Your task to perform on an android device: delete a single message in the gmail app Image 0: 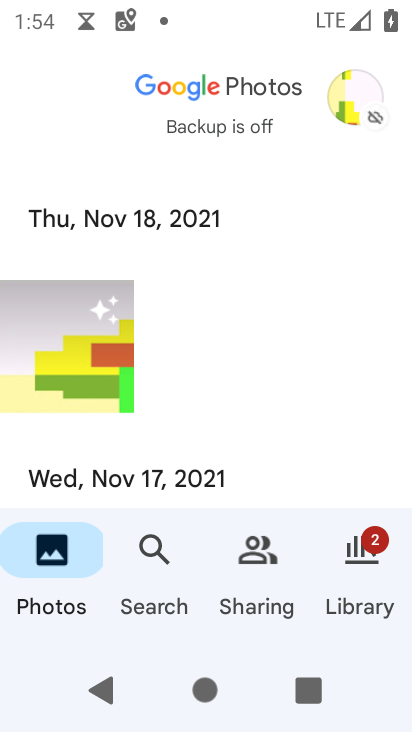
Step 0: press home button
Your task to perform on an android device: delete a single message in the gmail app Image 1: 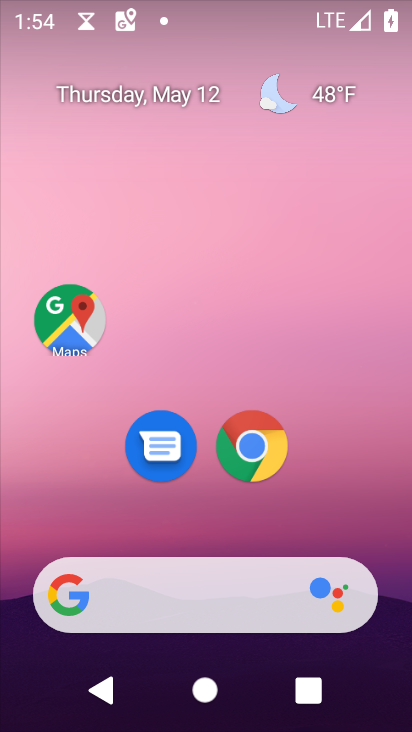
Step 1: drag from (326, 501) to (315, 109)
Your task to perform on an android device: delete a single message in the gmail app Image 2: 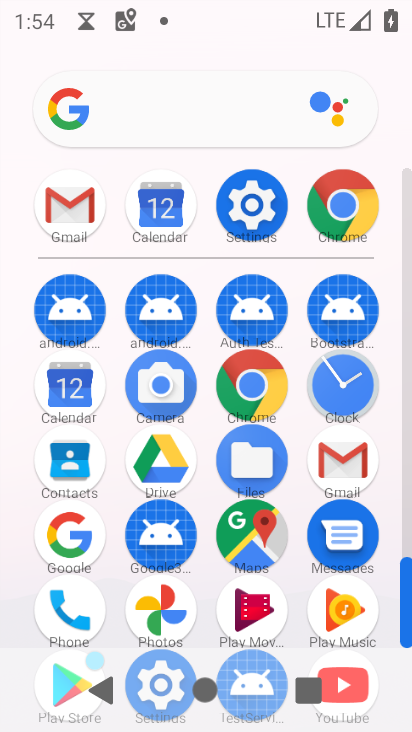
Step 2: click (71, 202)
Your task to perform on an android device: delete a single message in the gmail app Image 3: 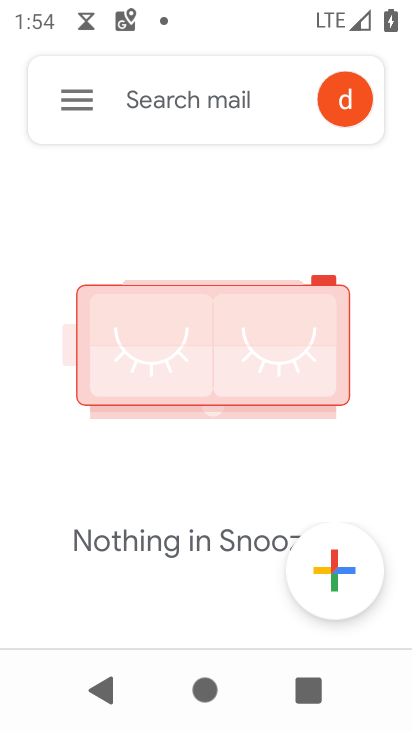
Step 3: click (81, 99)
Your task to perform on an android device: delete a single message in the gmail app Image 4: 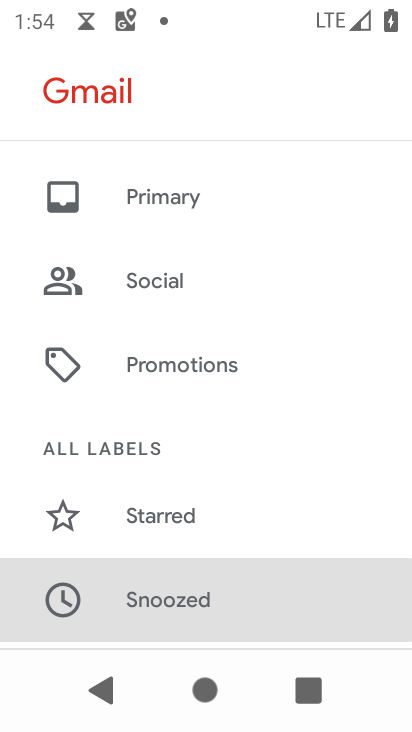
Step 4: drag from (246, 516) to (263, 212)
Your task to perform on an android device: delete a single message in the gmail app Image 5: 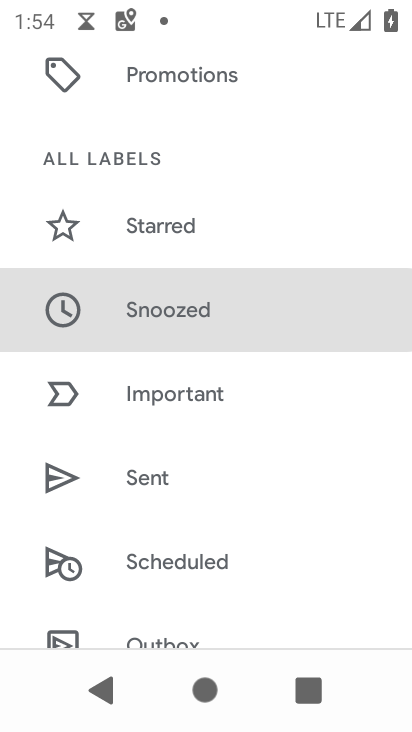
Step 5: drag from (262, 537) to (270, 160)
Your task to perform on an android device: delete a single message in the gmail app Image 6: 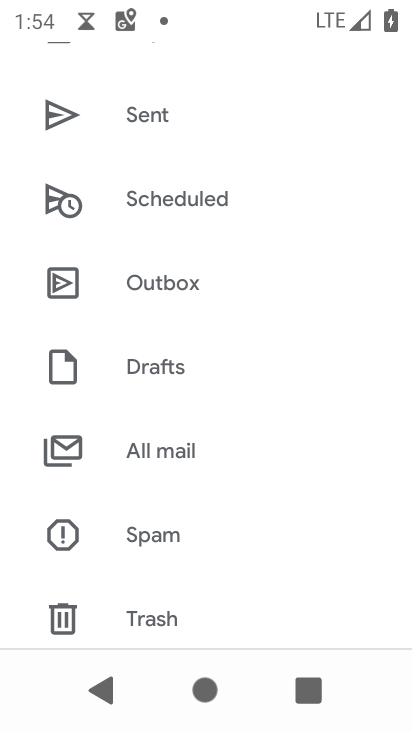
Step 6: click (165, 455)
Your task to perform on an android device: delete a single message in the gmail app Image 7: 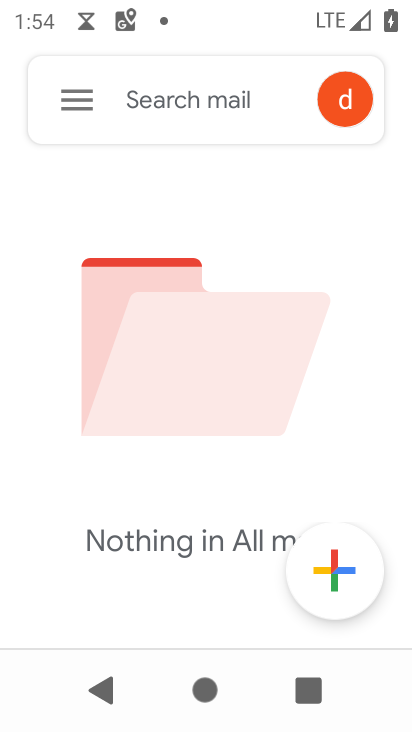
Step 7: task complete